Your task to perform on an android device: set the stopwatch Image 0: 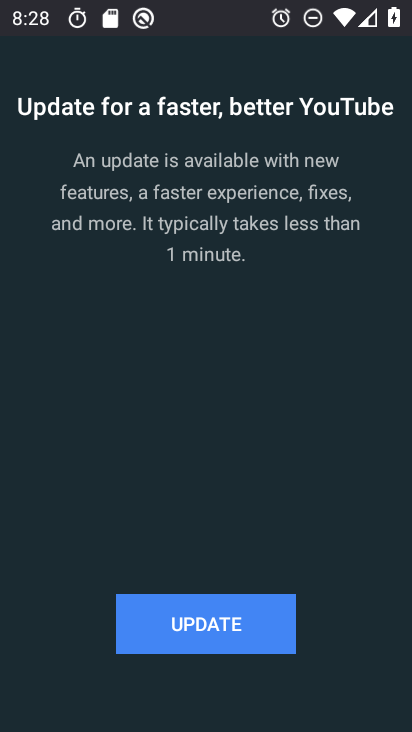
Step 0: press home button
Your task to perform on an android device: set the stopwatch Image 1: 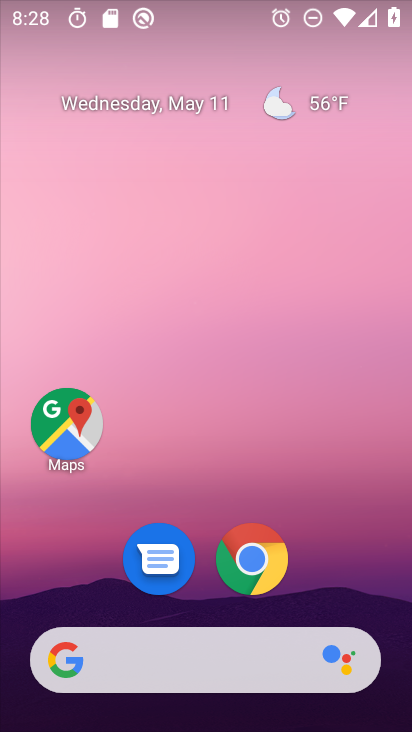
Step 1: drag from (326, 597) to (327, 18)
Your task to perform on an android device: set the stopwatch Image 2: 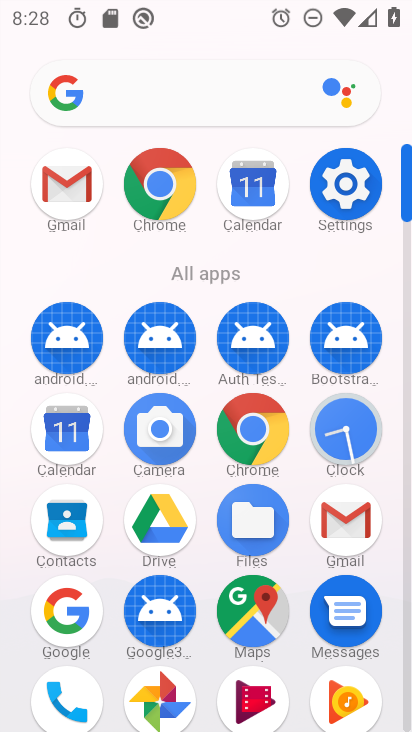
Step 2: click (352, 448)
Your task to perform on an android device: set the stopwatch Image 3: 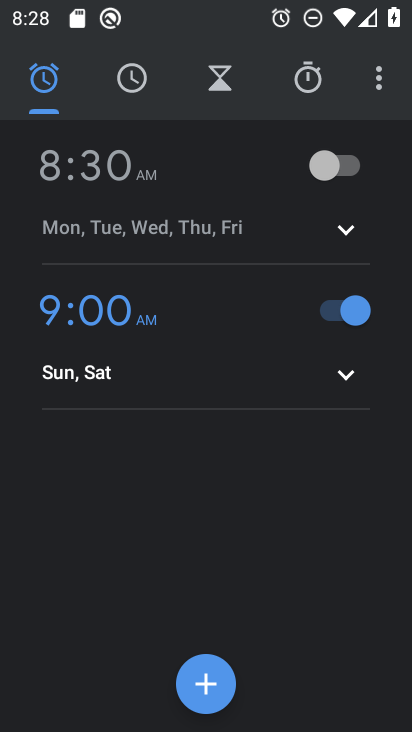
Step 3: click (299, 77)
Your task to perform on an android device: set the stopwatch Image 4: 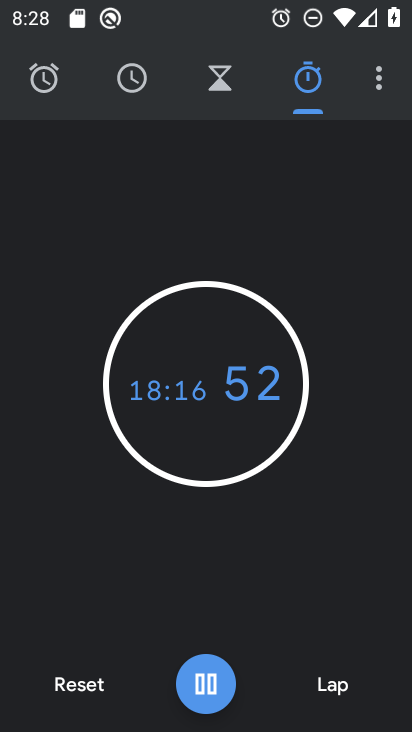
Step 4: click (78, 688)
Your task to perform on an android device: set the stopwatch Image 5: 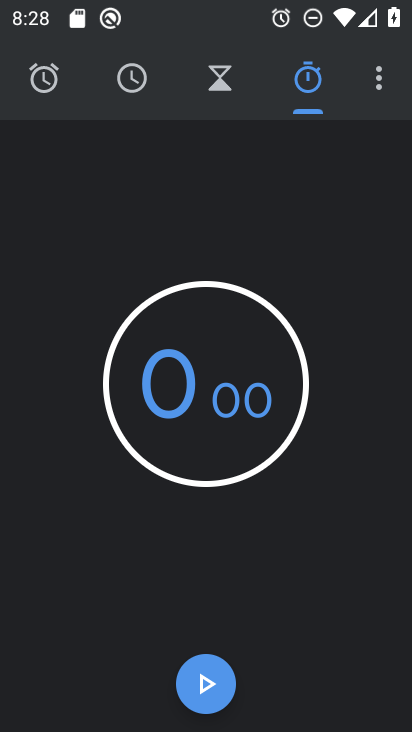
Step 5: click (213, 683)
Your task to perform on an android device: set the stopwatch Image 6: 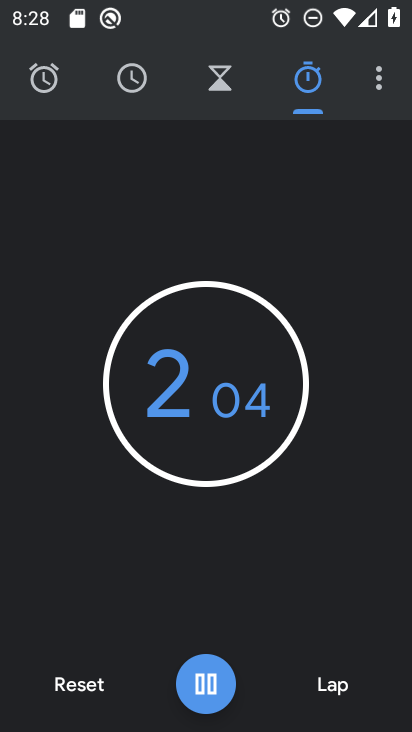
Step 6: task complete